Your task to perform on an android device: Open location settings Image 0: 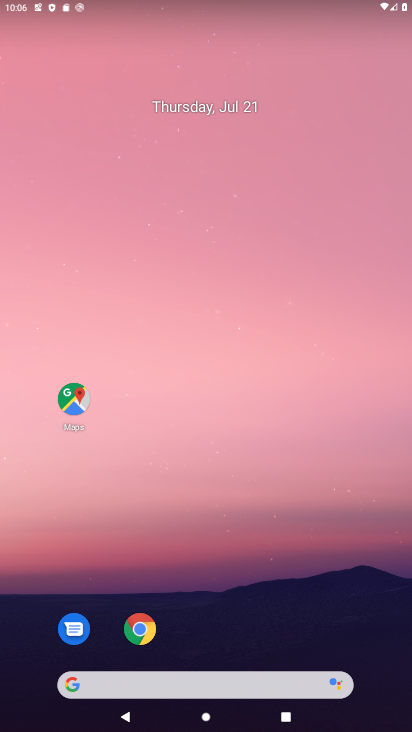
Step 0: drag from (183, 633) to (199, 143)
Your task to perform on an android device: Open location settings Image 1: 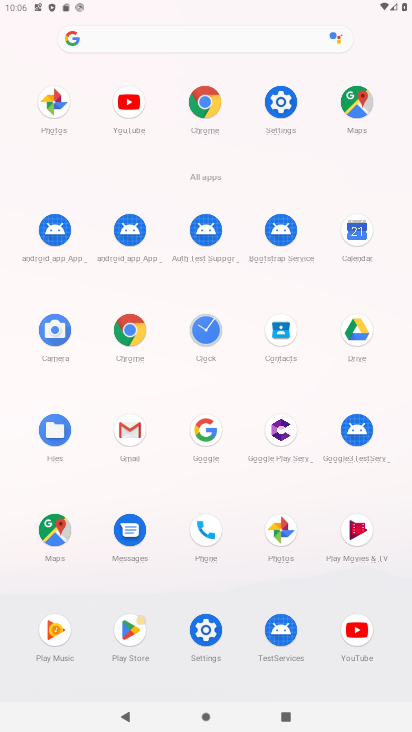
Step 1: click (299, 108)
Your task to perform on an android device: Open location settings Image 2: 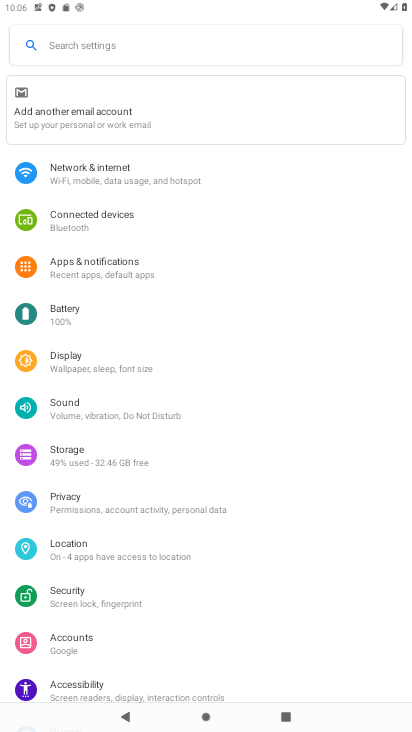
Step 2: click (80, 565)
Your task to perform on an android device: Open location settings Image 3: 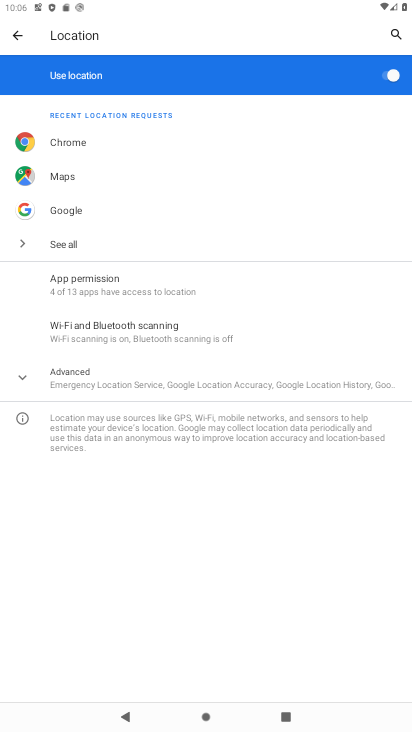
Step 3: task complete